Your task to perform on an android device: turn on translation in the chrome app Image 0: 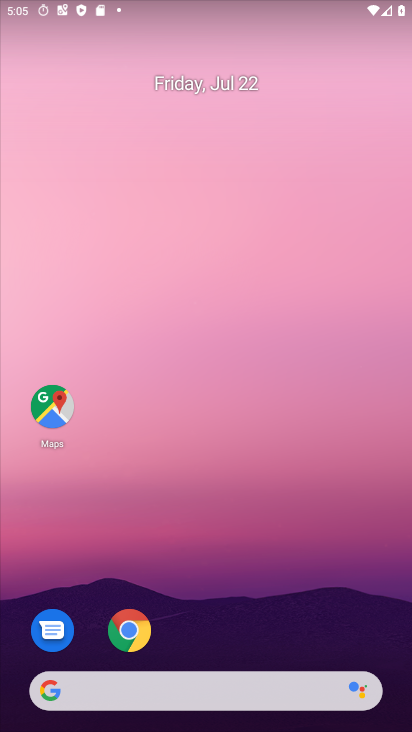
Step 0: drag from (277, 678) to (250, 7)
Your task to perform on an android device: turn on translation in the chrome app Image 1: 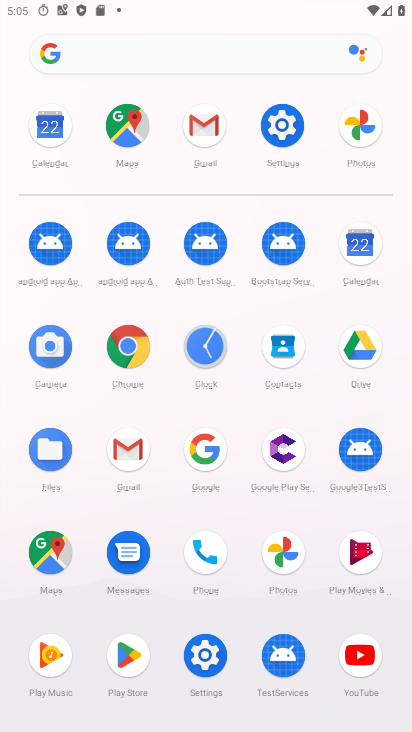
Step 1: click (120, 339)
Your task to perform on an android device: turn on translation in the chrome app Image 2: 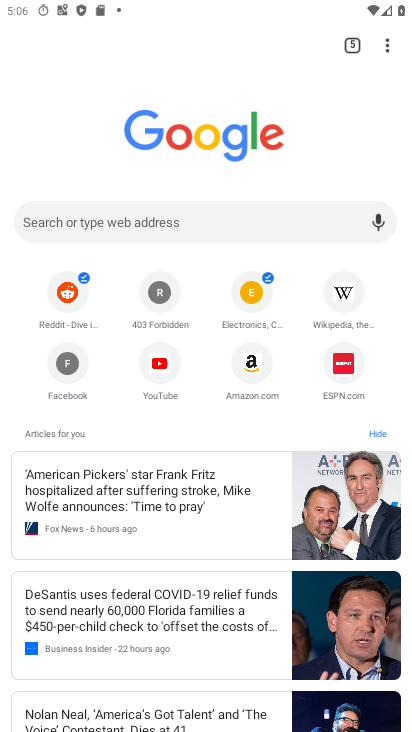
Step 2: drag from (391, 39) to (311, 399)
Your task to perform on an android device: turn on translation in the chrome app Image 3: 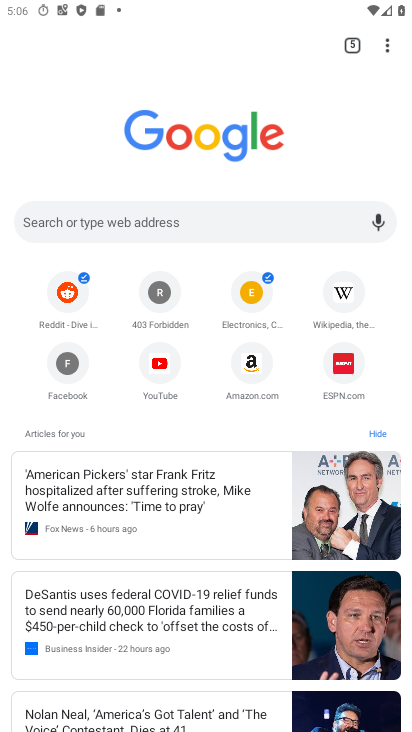
Step 3: click (255, 390)
Your task to perform on an android device: turn on translation in the chrome app Image 4: 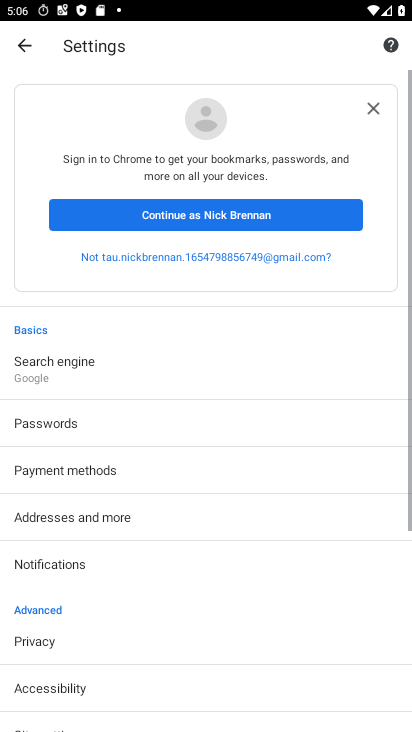
Step 4: drag from (190, 556) to (159, 238)
Your task to perform on an android device: turn on translation in the chrome app Image 5: 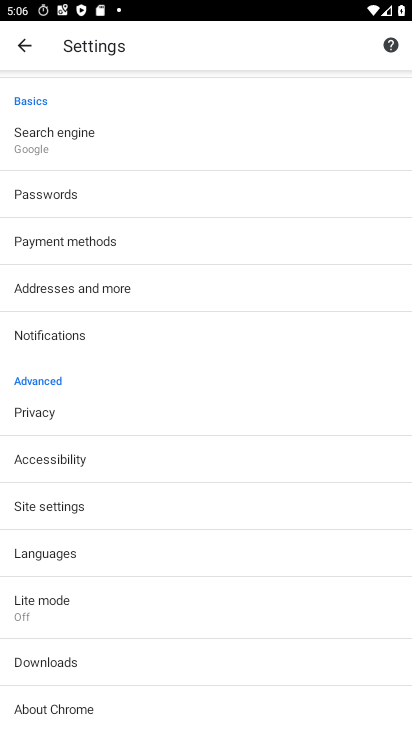
Step 5: click (74, 551)
Your task to perform on an android device: turn on translation in the chrome app Image 6: 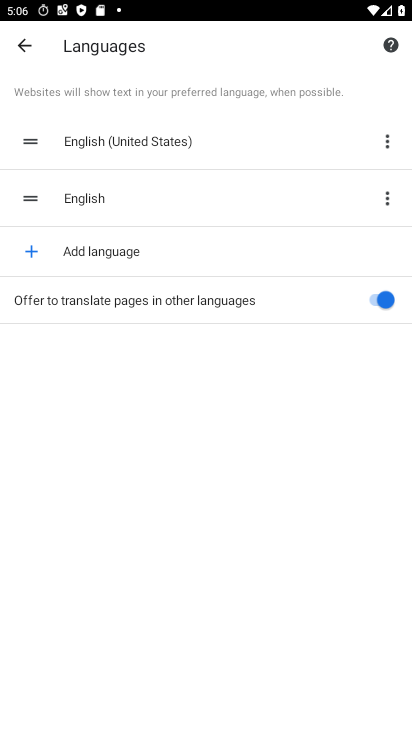
Step 6: task complete